Your task to perform on an android device: Go to Wikipedia Image 0: 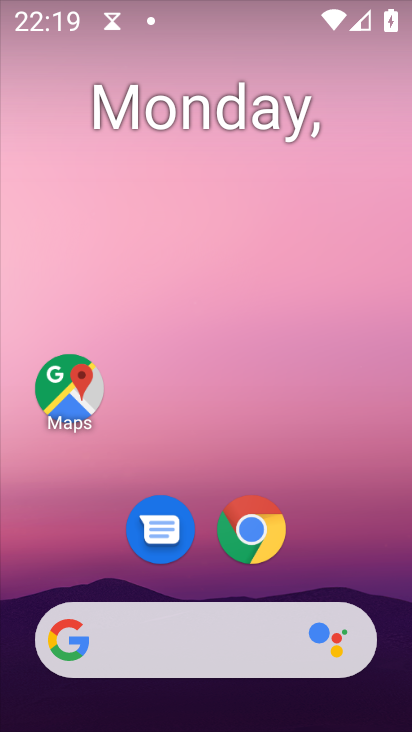
Step 0: click (252, 530)
Your task to perform on an android device: Go to Wikipedia Image 1: 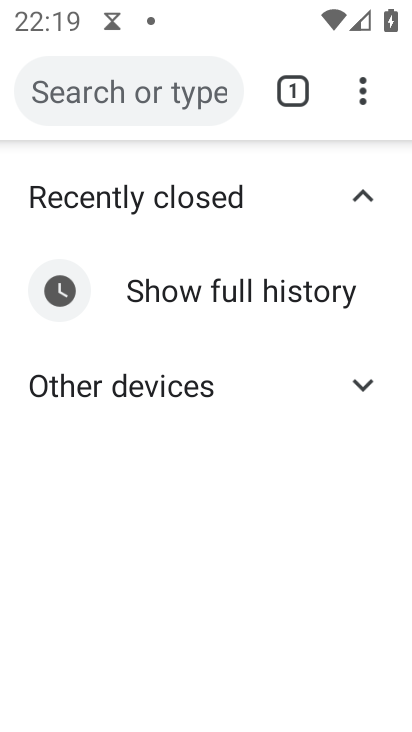
Step 1: click (213, 103)
Your task to perform on an android device: Go to Wikipedia Image 2: 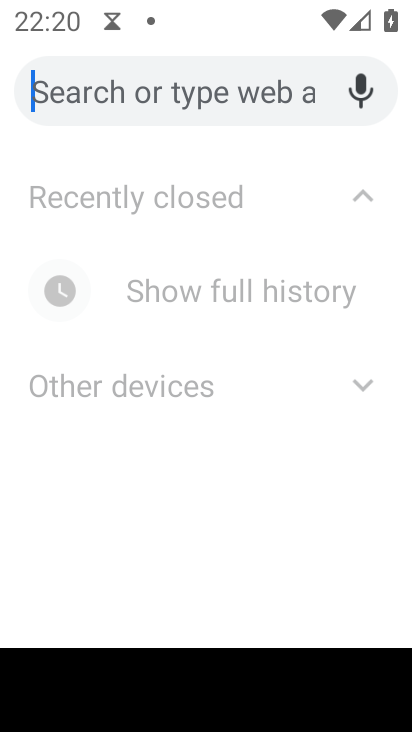
Step 2: type "Wikipedia"
Your task to perform on an android device: Go to Wikipedia Image 3: 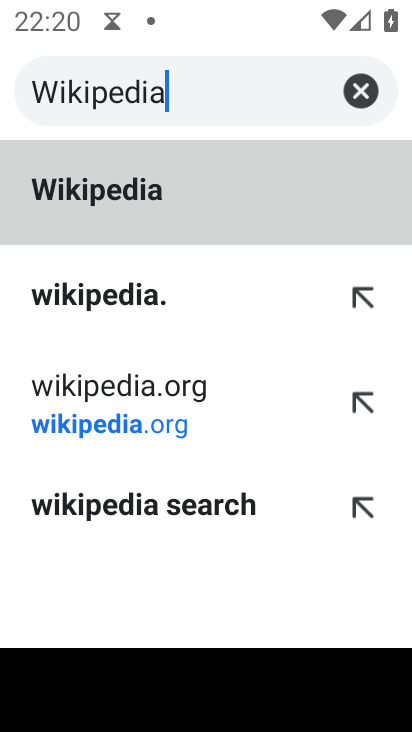
Step 3: click (135, 173)
Your task to perform on an android device: Go to Wikipedia Image 4: 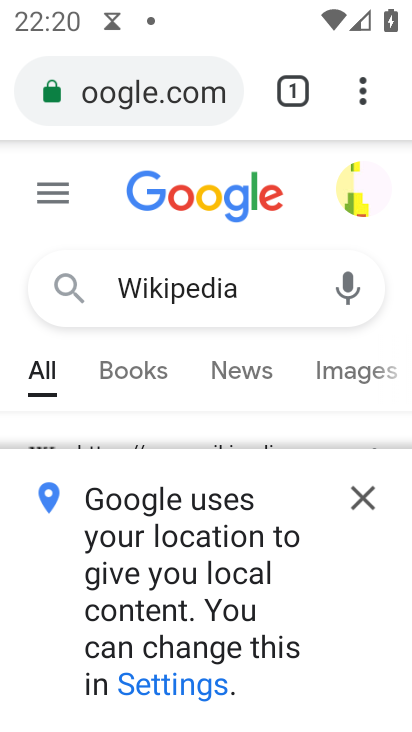
Step 4: click (362, 498)
Your task to perform on an android device: Go to Wikipedia Image 5: 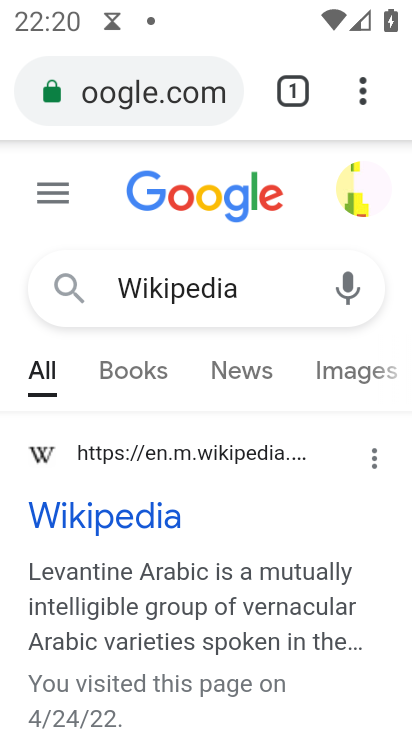
Step 5: drag from (250, 469) to (278, 357)
Your task to perform on an android device: Go to Wikipedia Image 6: 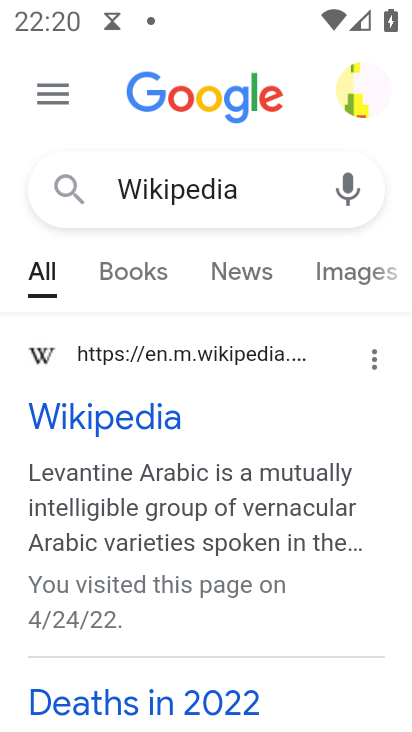
Step 6: click (92, 415)
Your task to perform on an android device: Go to Wikipedia Image 7: 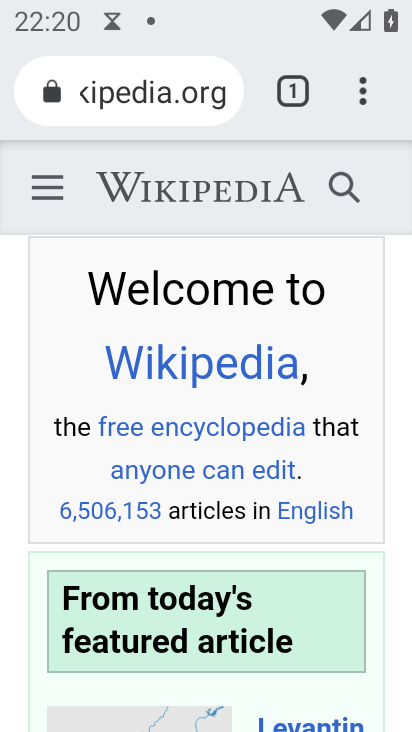
Step 7: task complete